Your task to perform on an android device: Is it going to rain today? Image 0: 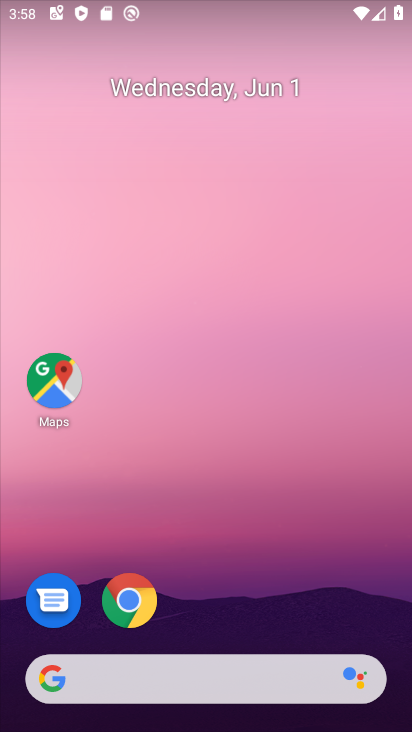
Step 0: drag from (7, 248) to (390, 380)
Your task to perform on an android device: Is it going to rain today? Image 1: 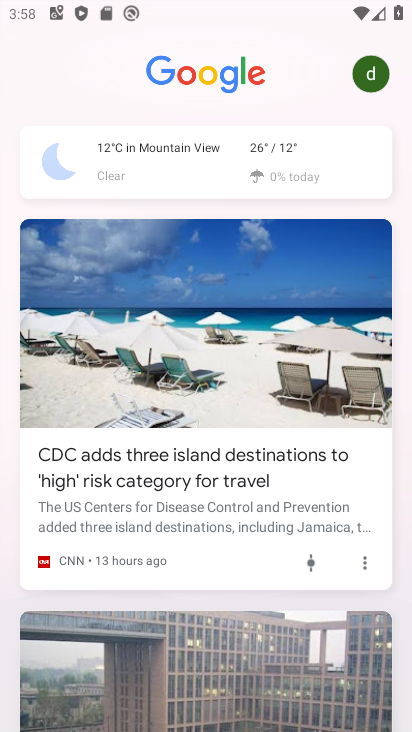
Step 1: click (280, 159)
Your task to perform on an android device: Is it going to rain today? Image 2: 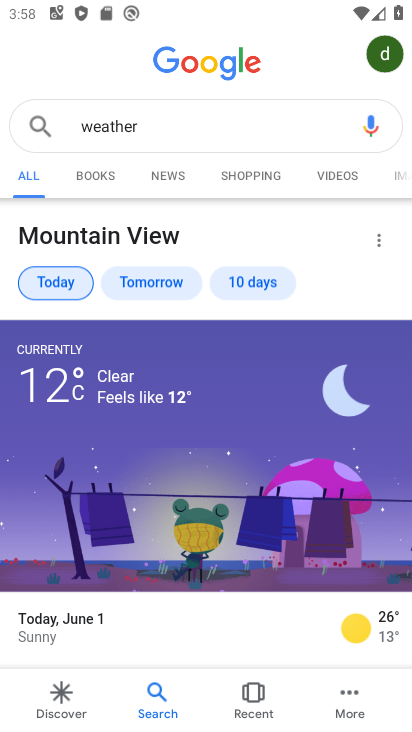
Step 2: task complete